Your task to perform on an android device: Open Maps and search for coffee Image 0: 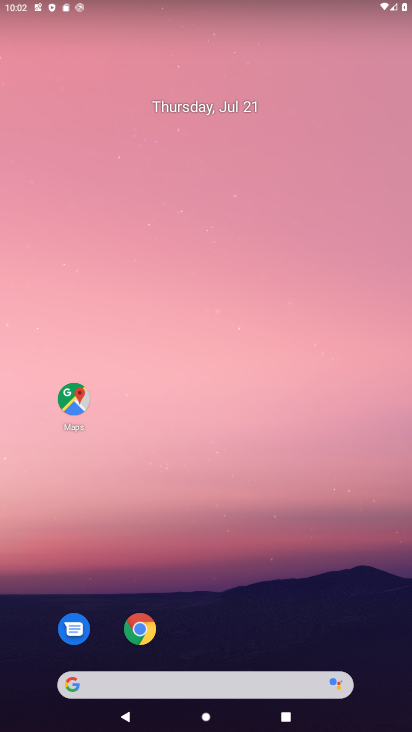
Step 0: click (87, 389)
Your task to perform on an android device: Open Maps and search for coffee Image 1: 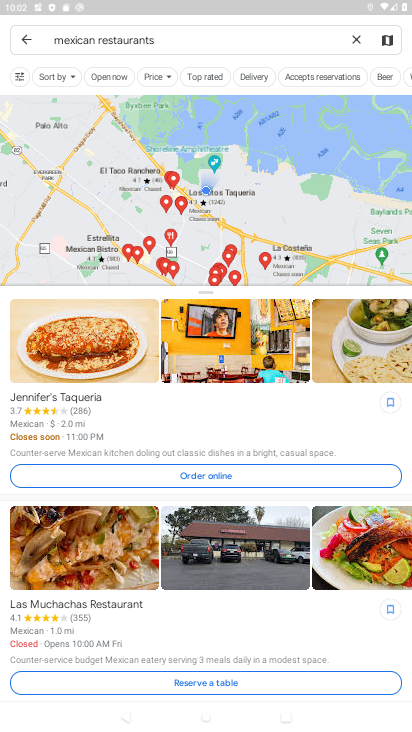
Step 1: click (357, 36)
Your task to perform on an android device: Open Maps and search for coffee Image 2: 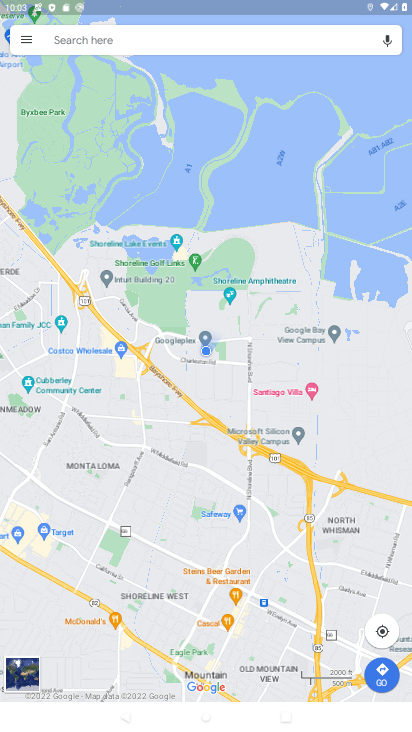
Step 2: click (303, 37)
Your task to perform on an android device: Open Maps and search for coffee Image 3: 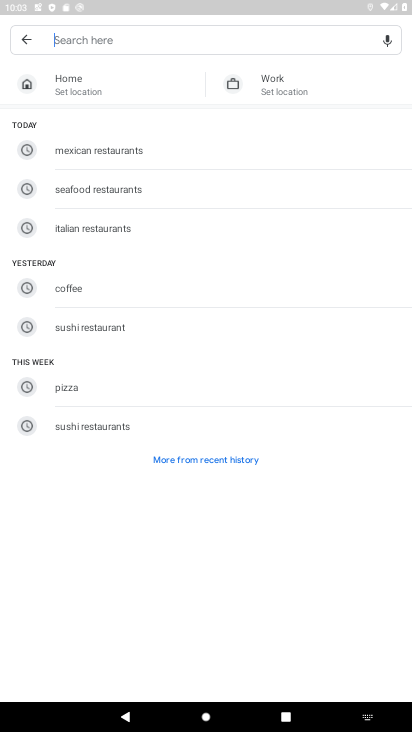
Step 3: click (113, 275)
Your task to perform on an android device: Open Maps and search for coffee Image 4: 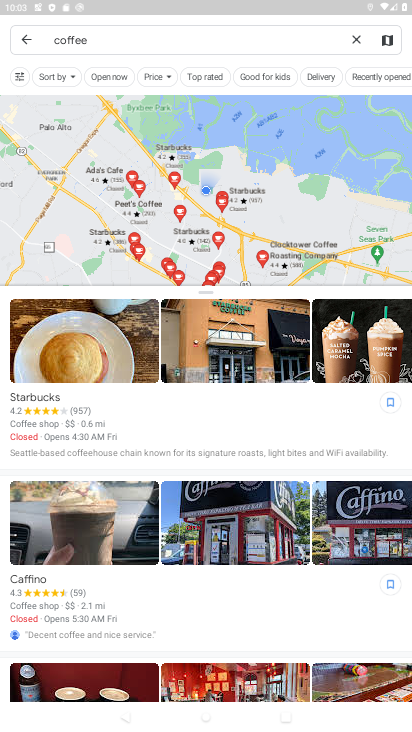
Step 4: task complete